Your task to perform on an android device: Go to eBay Image 0: 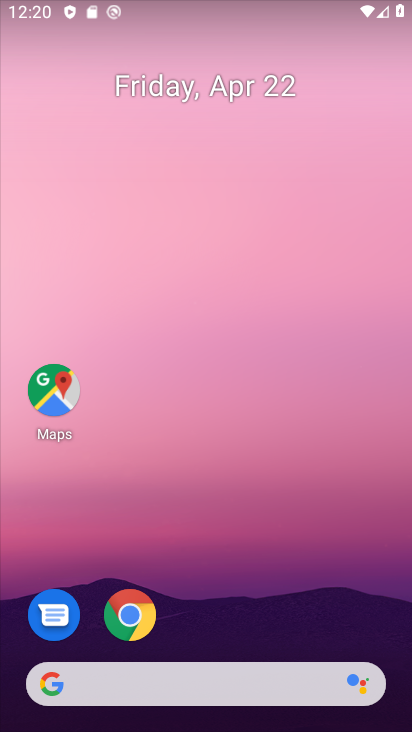
Step 0: click (148, 624)
Your task to perform on an android device: Go to eBay Image 1: 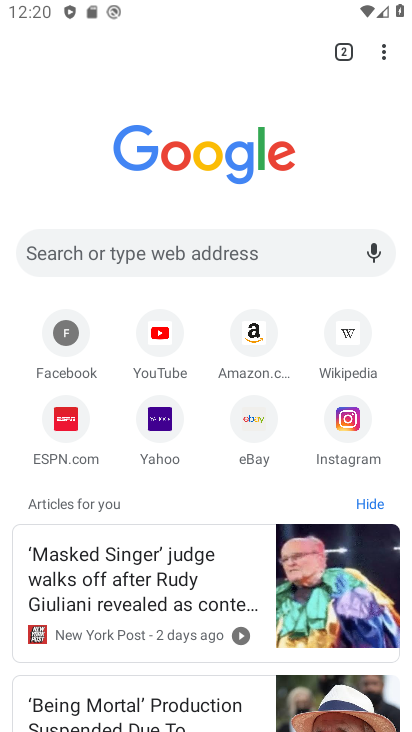
Step 1: click (264, 427)
Your task to perform on an android device: Go to eBay Image 2: 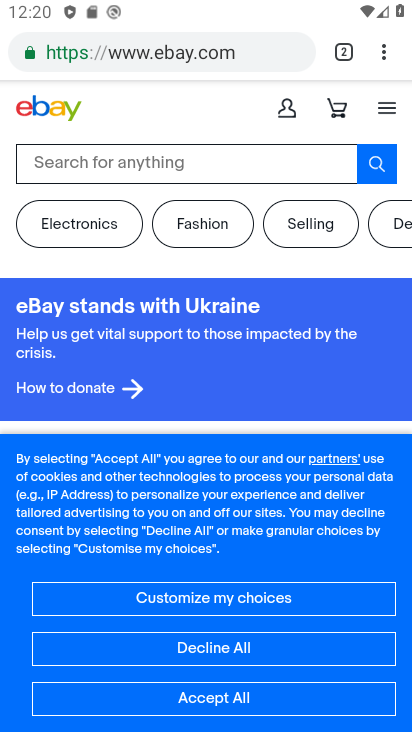
Step 2: click (232, 704)
Your task to perform on an android device: Go to eBay Image 3: 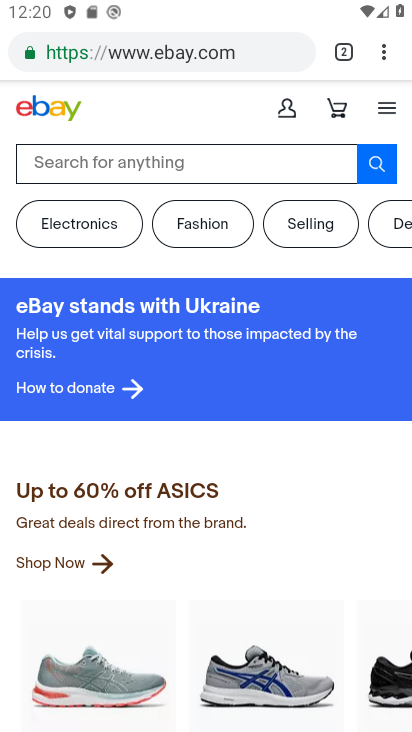
Step 3: task complete